Your task to perform on an android device: Open Google Chrome Image 0: 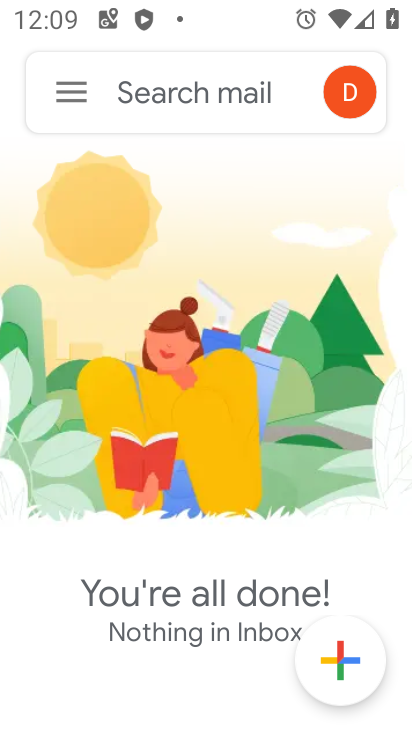
Step 0: press home button
Your task to perform on an android device: Open Google Chrome Image 1: 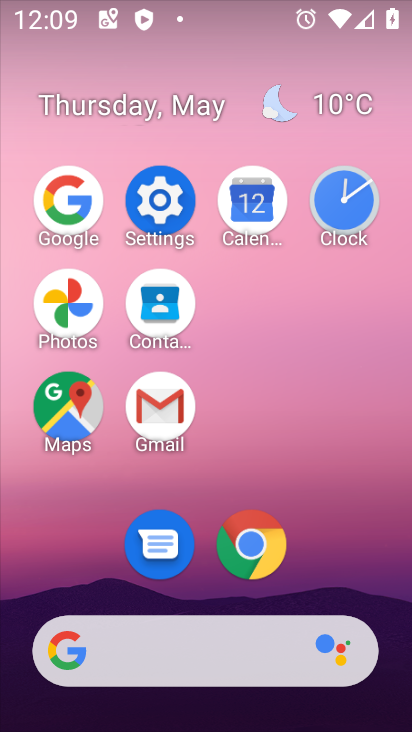
Step 1: click (272, 542)
Your task to perform on an android device: Open Google Chrome Image 2: 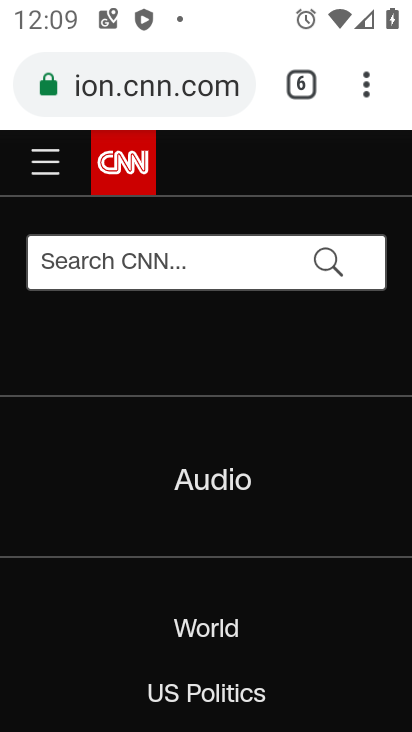
Step 2: task complete